Your task to perform on an android device: turn off location history Image 0: 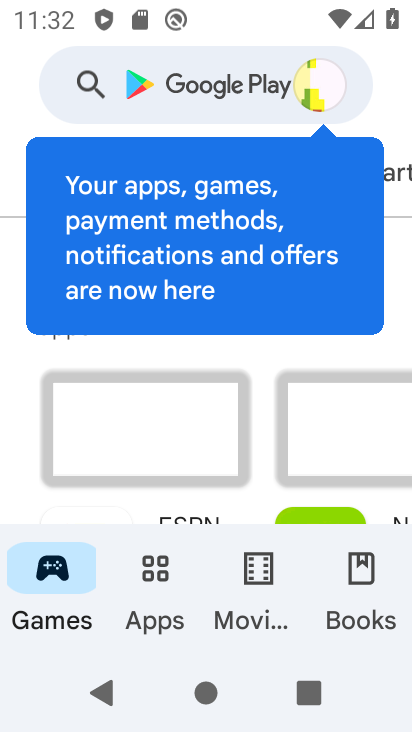
Step 0: press back button
Your task to perform on an android device: turn off location history Image 1: 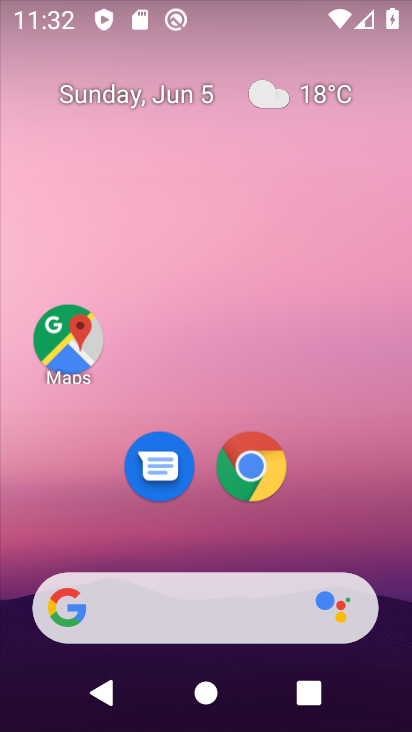
Step 1: drag from (328, 481) to (253, 0)
Your task to perform on an android device: turn off location history Image 2: 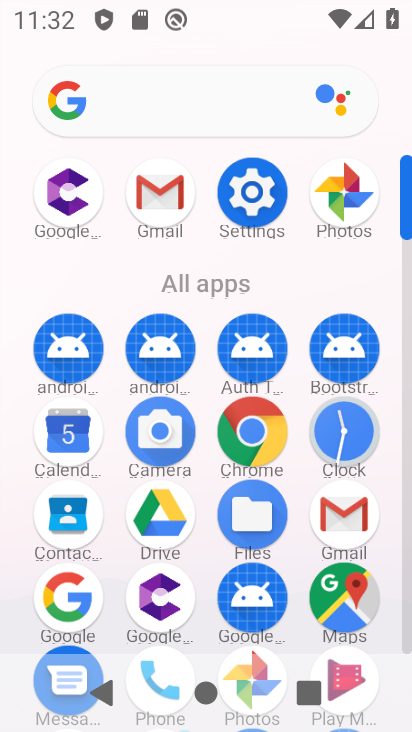
Step 2: drag from (3, 570) to (6, 270)
Your task to perform on an android device: turn off location history Image 3: 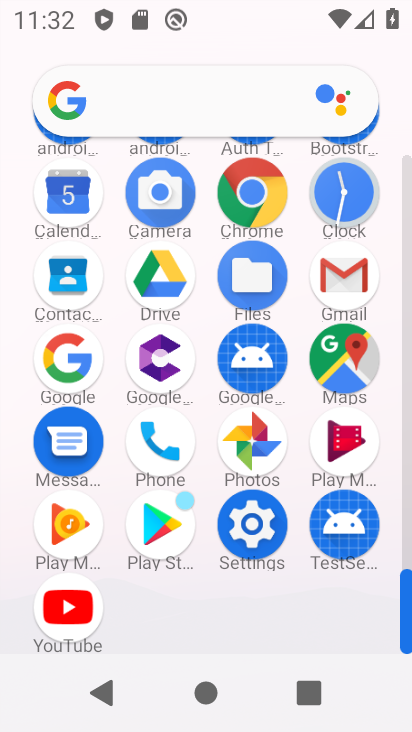
Step 3: click (250, 522)
Your task to perform on an android device: turn off location history Image 4: 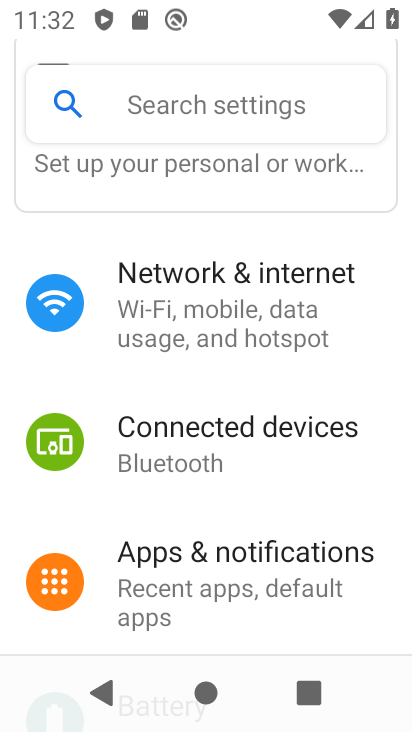
Step 4: drag from (262, 570) to (256, 228)
Your task to perform on an android device: turn off location history Image 5: 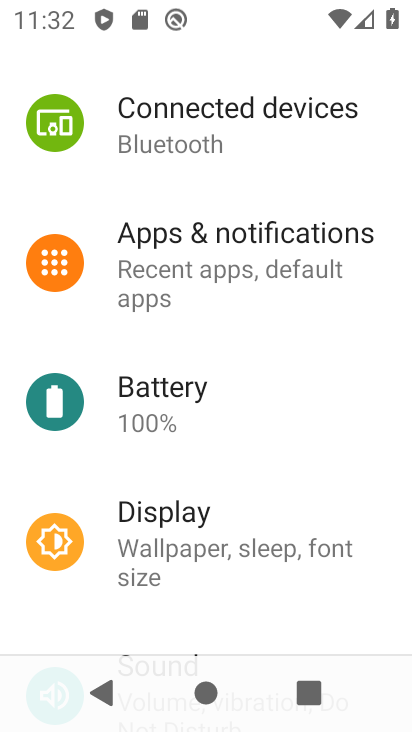
Step 5: drag from (274, 566) to (283, 218)
Your task to perform on an android device: turn off location history Image 6: 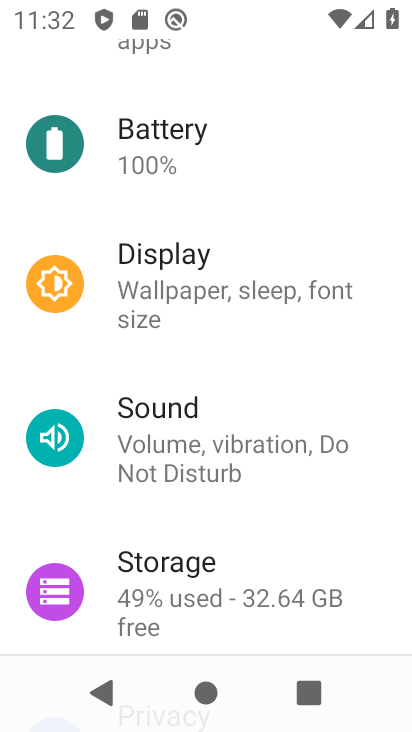
Step 6: drag from (235, 556) to (251, 226)
Your task to perform on an android device: turn off location history Image 7: 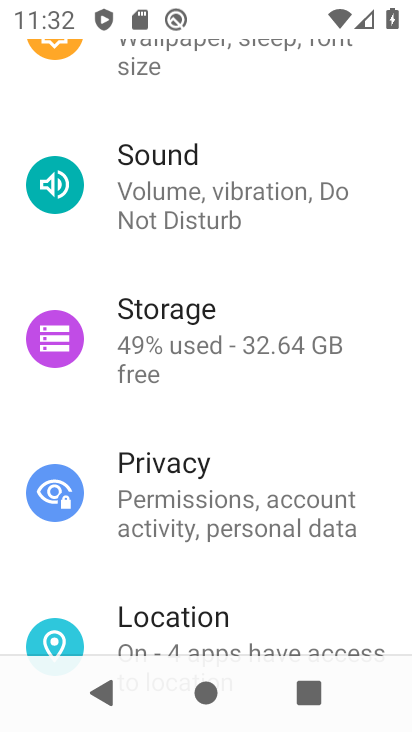
Step 7: click (180, 608)
Your task to perform on an android device: turn off location history Image 8: 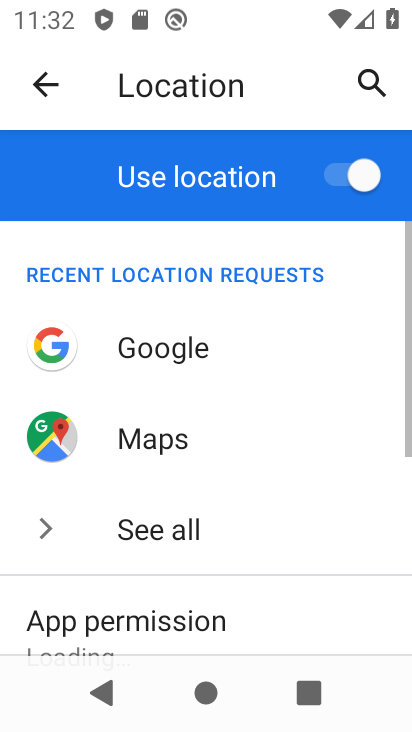
Step 8: drag from (285, 605) to (276, 167)
Your task to perform on an android device: turn off location history Image 9: 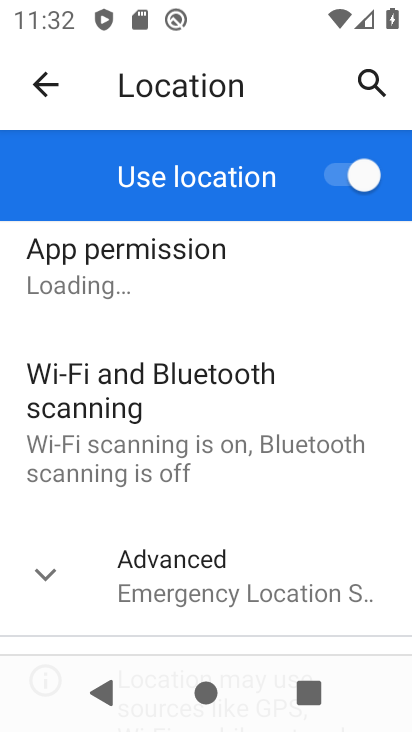
Step 9: click (55, 564)
Your task to perform on an android device: turn off location history Image 10: 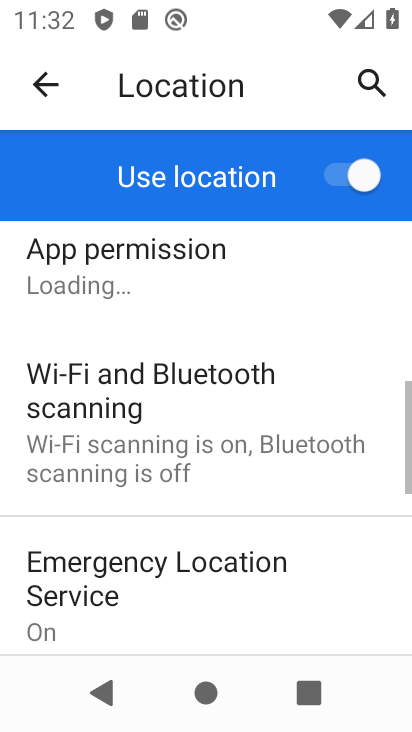
Step 10: drag from (240, 610) to (220, 280)
Your task to perform on an android device: turn off location history Image 11: 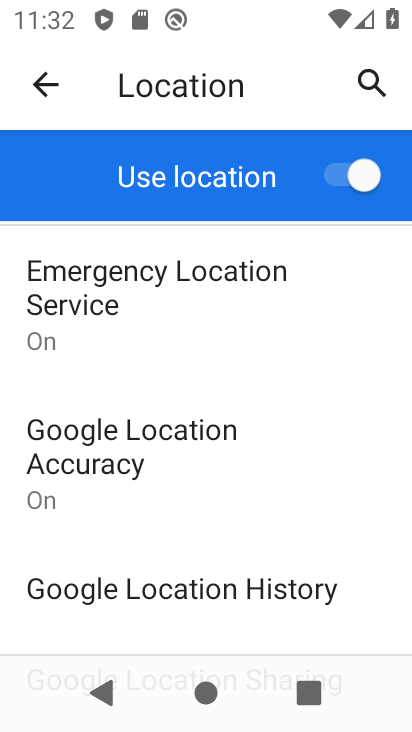
Step 11: drag from (220, 556) to (264, 289)
Your task to perform on an android device: turn off location history Image 12: 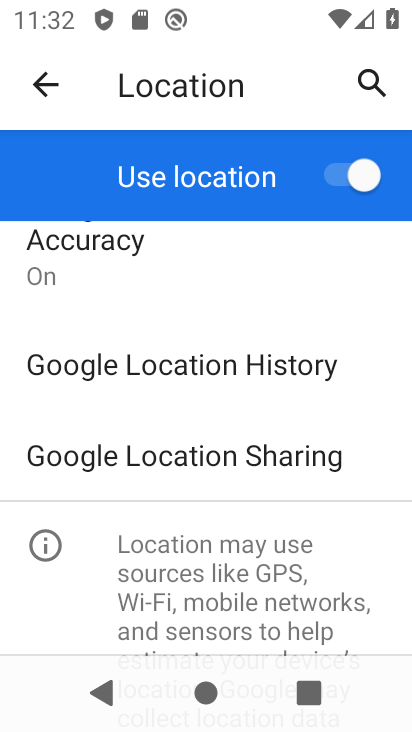
Step 12: click (183, 379)
Your task to perform on an android device: turn off location history Image 13: 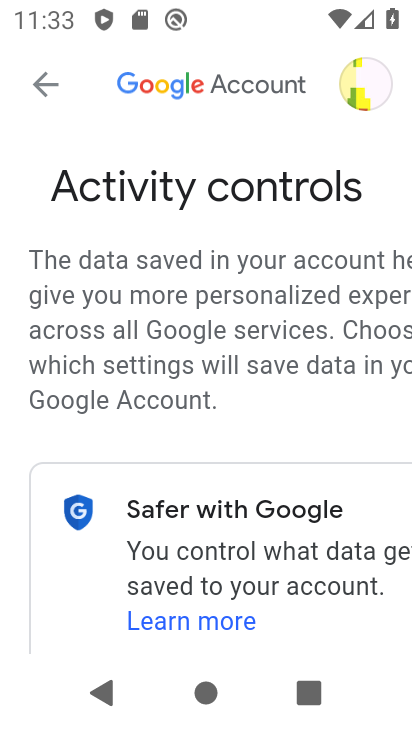
Step 13: task complete